Your task to perform on an android device: What's the weather today? Image 0: 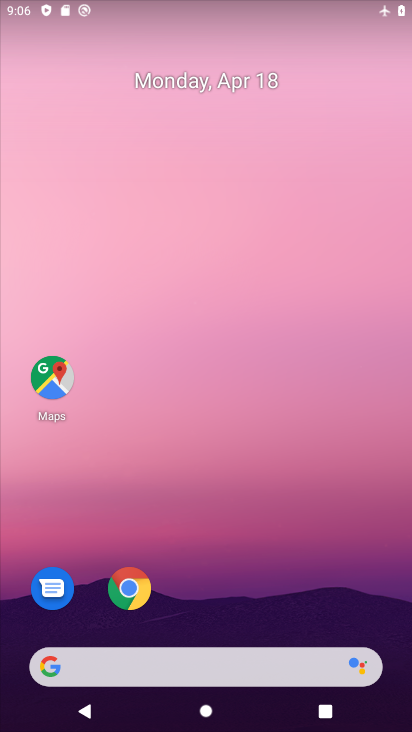
Step 0: drag from (263, 471) to (290, 256)
Your task to perform on an android device: What's the weather today? Image 1: 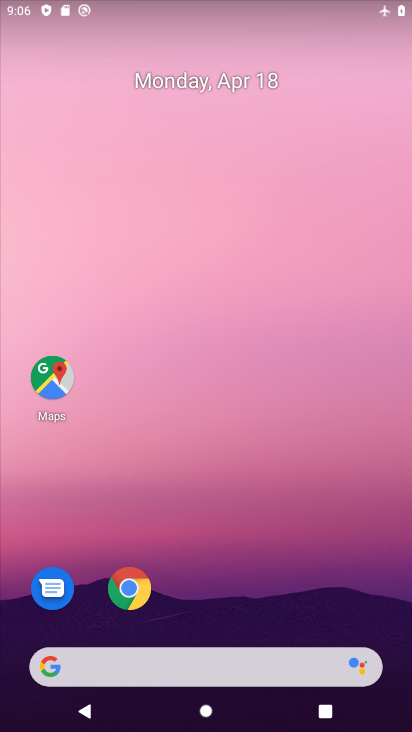
Step 1: drag from (257, 582) to (295, 224)
Your task to perform on an android device: What's the weather today? Image 2: 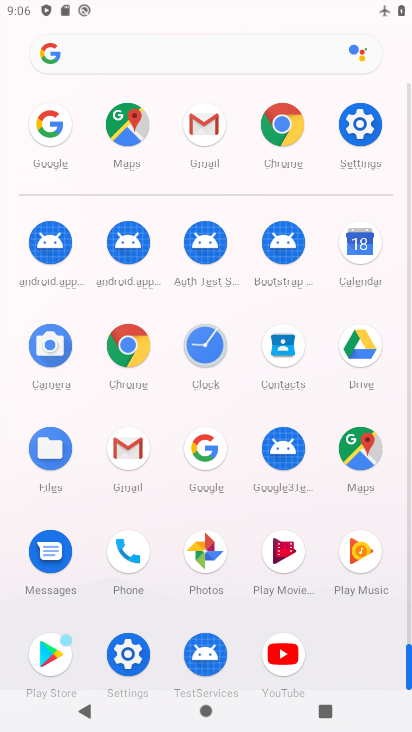
Step 2: drag from (326, 631) to (272, 364)
Your task to perform on an android device: What's the weather today? Image 3: 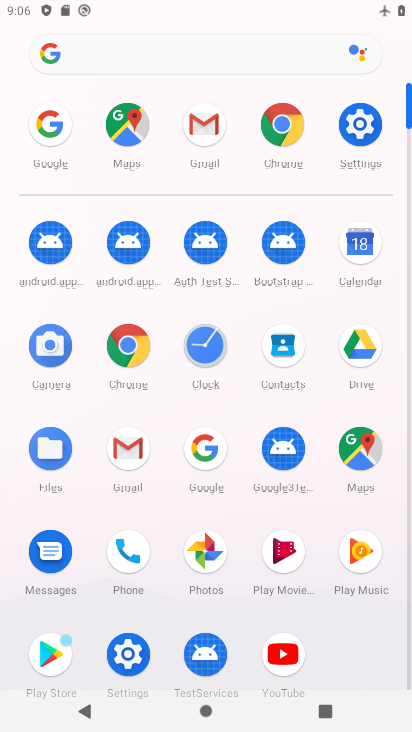
Step 3: click (208, 457)
Your task to perform on an android device: What's the weather today? Image 4: 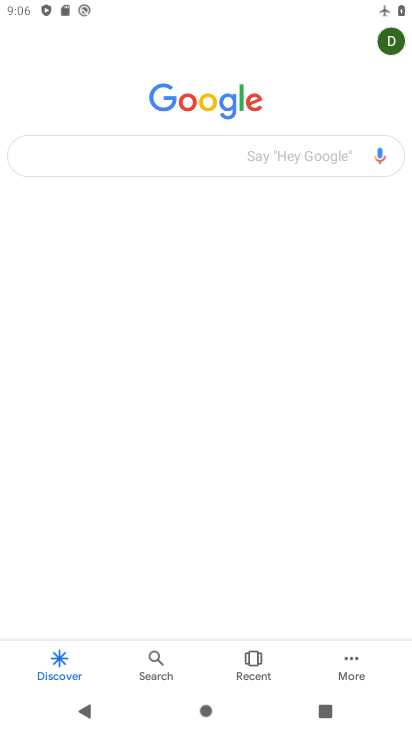
Step 4: click (218, 157)
Your task to perform on an android device: What's the weather today? Image 5: 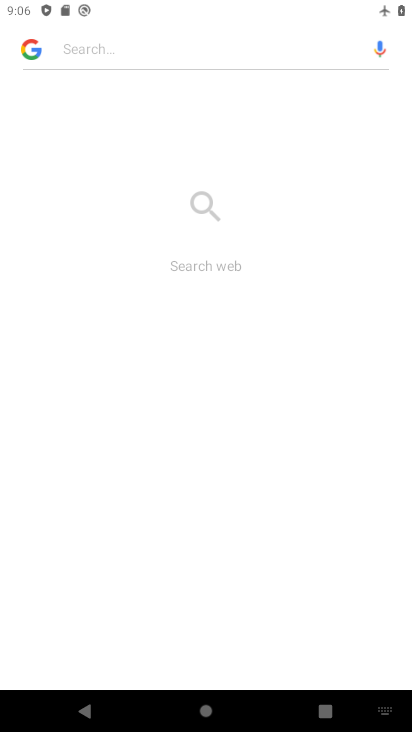
Step 5: type "What's the weather today?"
Your task to perform on an android device: What's the weather today? Image 6: 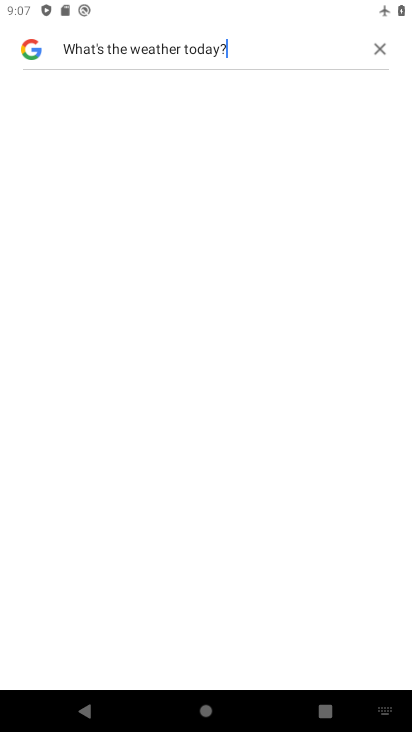
Step 6: click (242, 55)
Your task to perform on an android device: What's the weather today? Image 7: 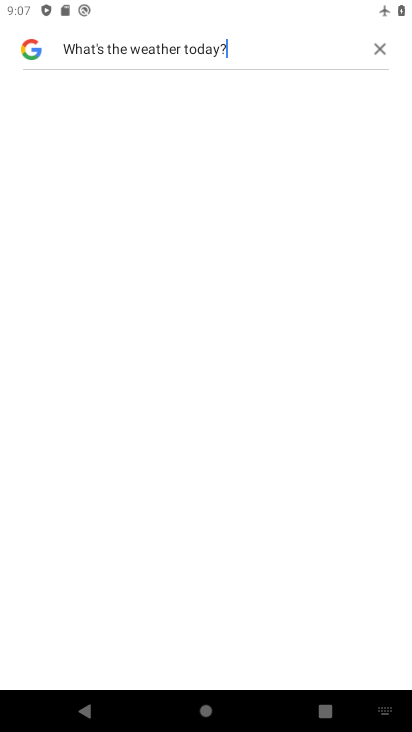
Step 7: click (244, 50)
Your task to perform on an android device: What's the weather today? Image 8: 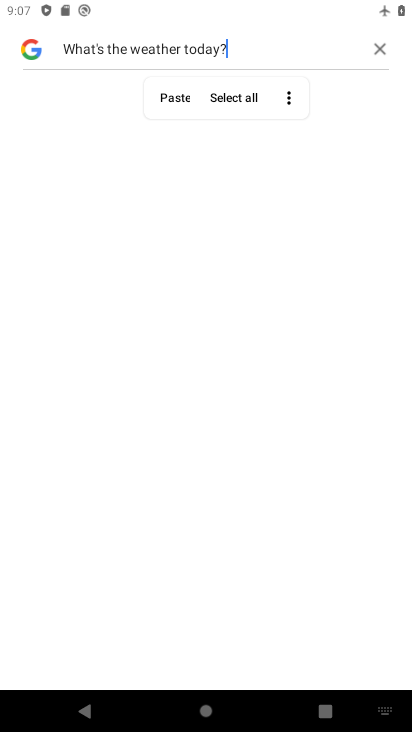
Step 8: task complete